Your task to perform on an android device: Open Youtube and go to "Your channel" Image 0: 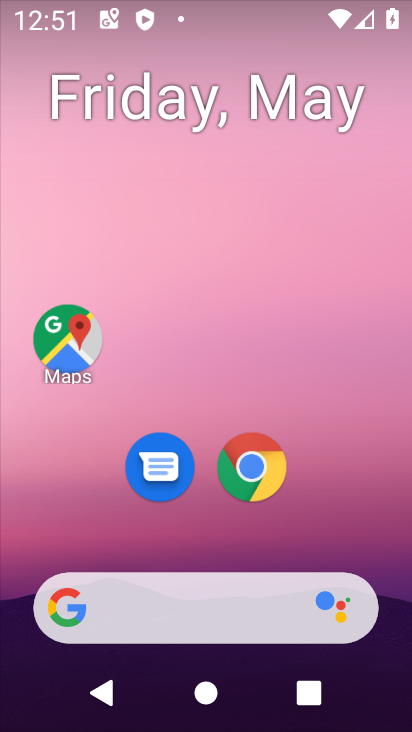
Step 0: drag from (315, 543) to (338, 164)
Your task to perform on an android device: Open Youtube and go to "Your channel" Image 1: 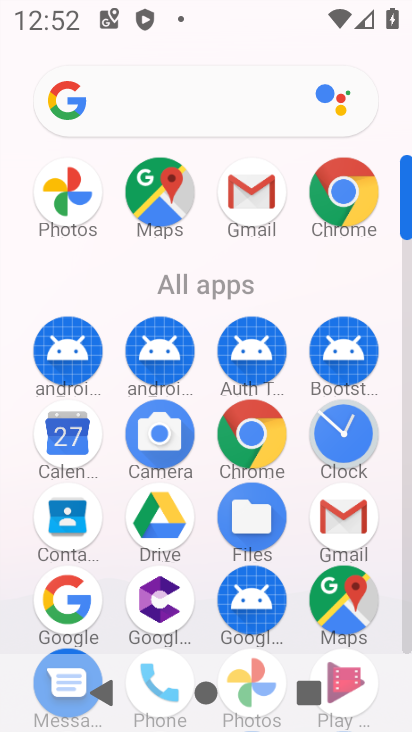
Step 1: click (410, 643)
Your task to perform on an android device: Open Youtube and go to "Your channel" Image 2: 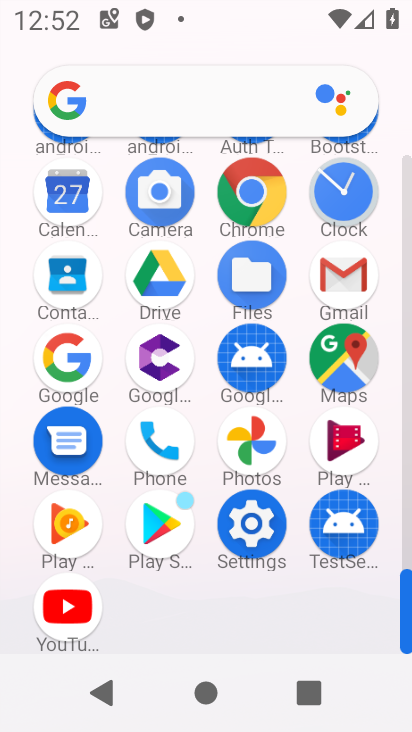
Step 2: click (94, 614)
Your task to perform on an android device: Open Youtube and go to "Your channel" Image 3: 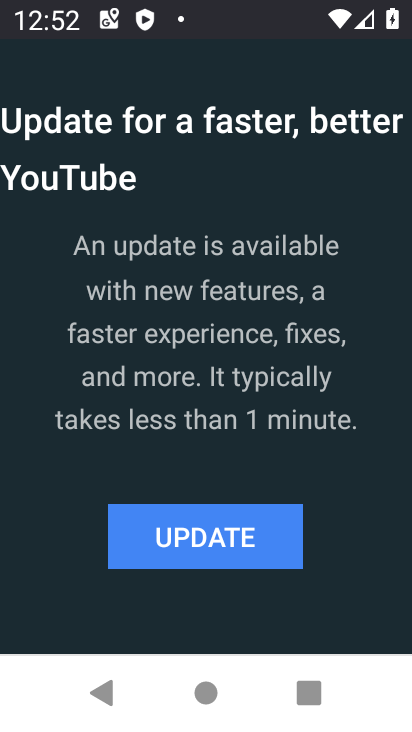
Step 3: click (171, 543)
Your task to perform on an android device: Open Youtube and go to "Your channel" Image 4: 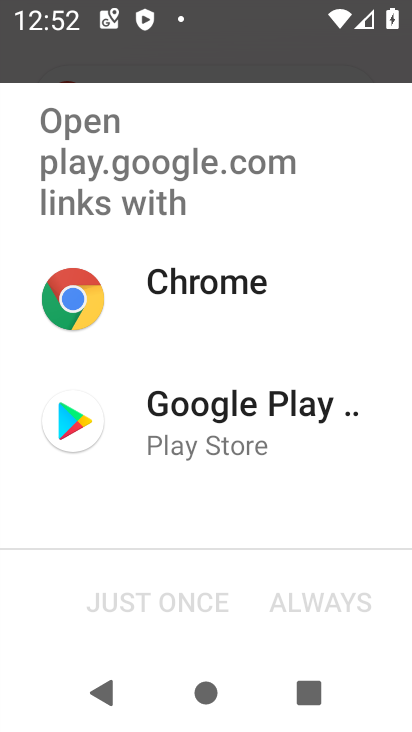
Step 4: click (93, 437)
Your task to perform on an android device: Open Youtube and go to "Your channel" Image 5: 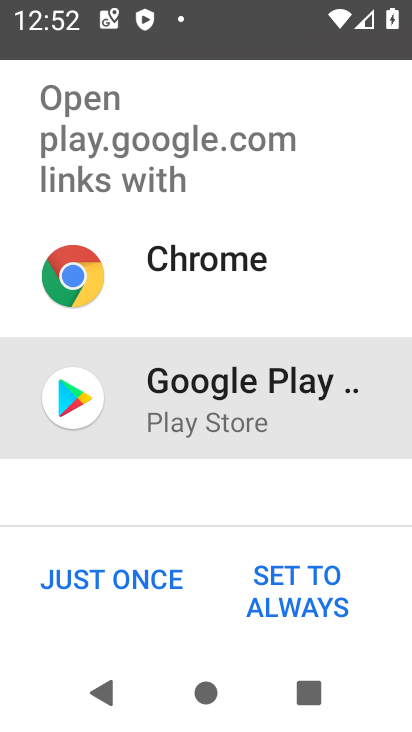
Step 5: click (38, 608)
Your task to perform on an android device: Open Youtube and go to "Your channel" Image 6: 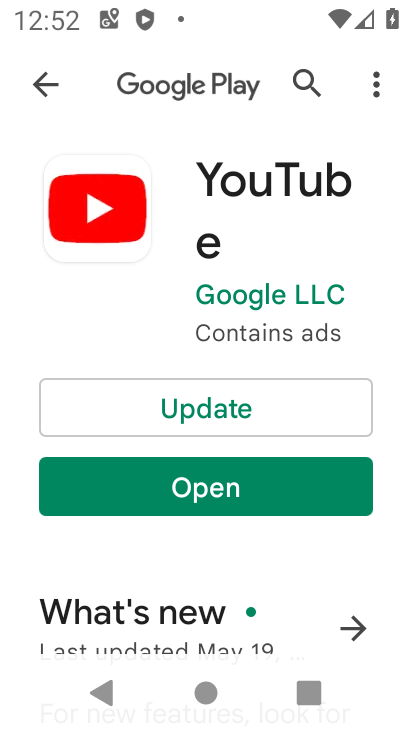
Step 6: click (193, 407)
Your task to perform on an android device: Open Youtube and go to "Your channel" Image 7: 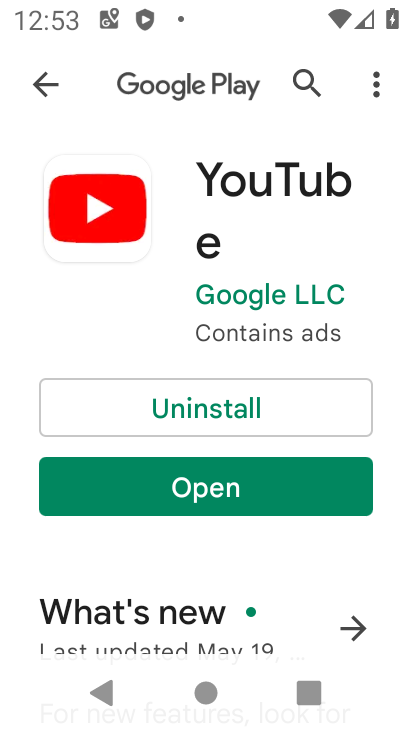
Step 7: click (284, 486)
Your task to perform on an android device: Open Youtube and go to "Your channel" Image 8: 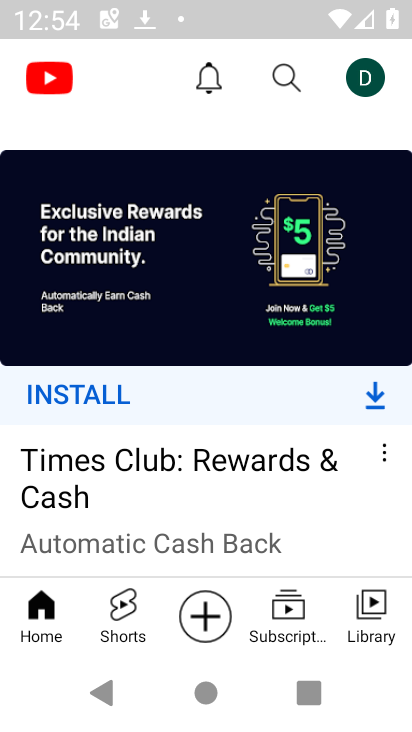
Step 8: click (364, 55)
Your task to perform on an android device: Open Youtube and go to "Your channel" Image 9: 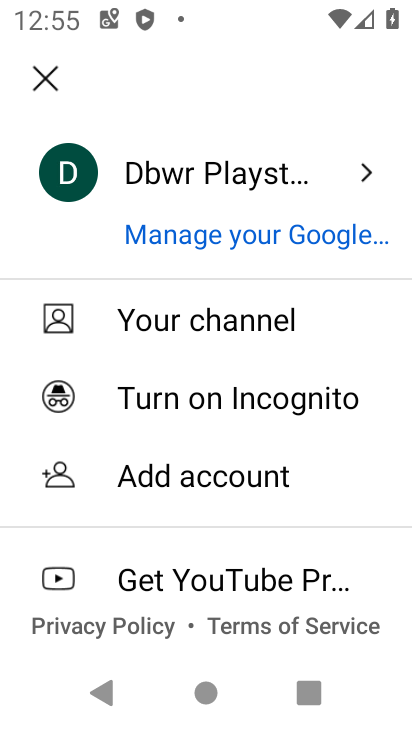
Step 9: click (157, 335)
Your task to perform on an android device: Open Youtube and go to "Your channel" Image 10: 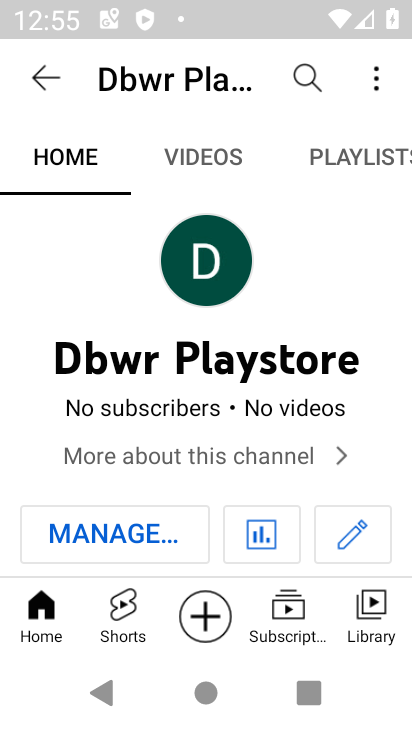
Step 10: task complete